Your task to perform on an android device: open app "Etsy: Buy & Sell Unique Items" (install if not already installed) Image 0: 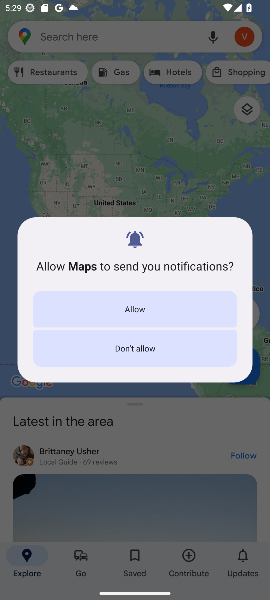
Step 0: press home button
Your task to perform on an android device: open app "Etsy: Buy & Sell Unique Items" (install if not already installed) Image 1: 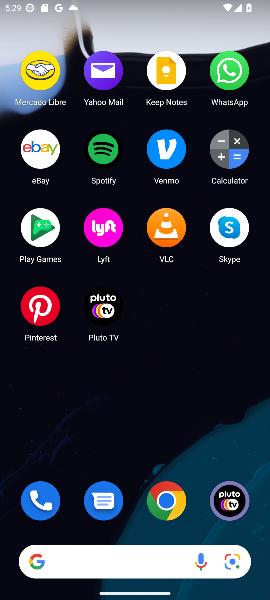
Step 1: drag from (142, 371) to (126, 42)
Your task to perform on an android device: open app "Etsy: Buy & Sell Unique Items" (install if not already installed) Image 2: 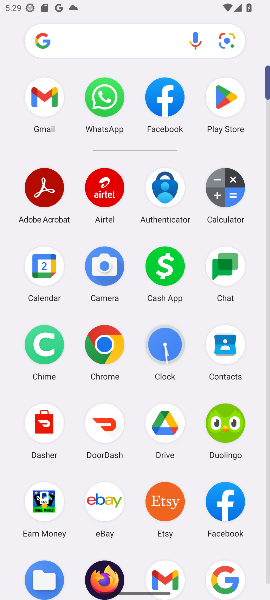
Step 2: click (221, 96)
Your task to perform on an android device: open app "Etsy: Buy & Sell Unique Items" (install if not already installed) Image 3: 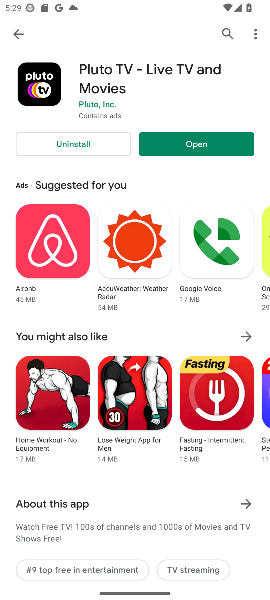
Step 3: click (221, 35)
Your task to perform on an android device: open app "Etsy: Buy & Sell Unique Items" (install if not already installed) Image 4: 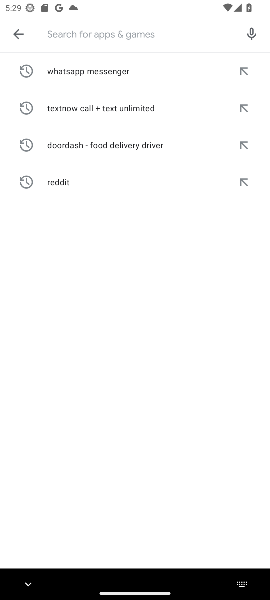
Step 4: type "Etsy: Buy & Sell Unique Items"
Your task to perform on an android device: open app "Etsy: Buy & Sell Unique Items" (install if not already installed) Image 5: 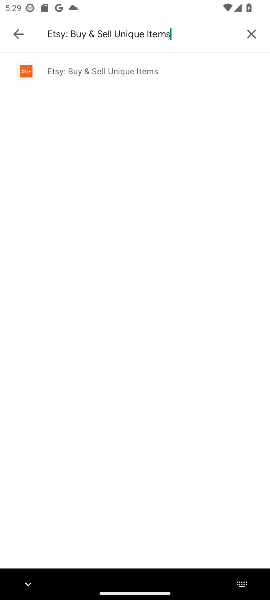
Step 5: click (68, 77)
Your task to perform on an android device: open app "Etsy: Buy & Sell Unique Items" (install if not already installed) Image 6: 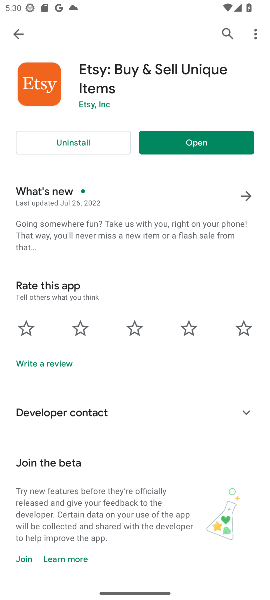
Step 6: click (193, 145)
Your task to perform on an android device: open app "Etsy: Buy & Sell Unique Items" (install if not already installed) Image 7: 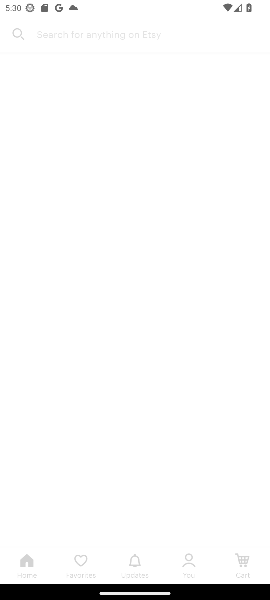
Step 7: press back button
Your task to perform on an android device: open app "Etsy: Buy & Sell Unique Items" (install if not already installed) Image 8: 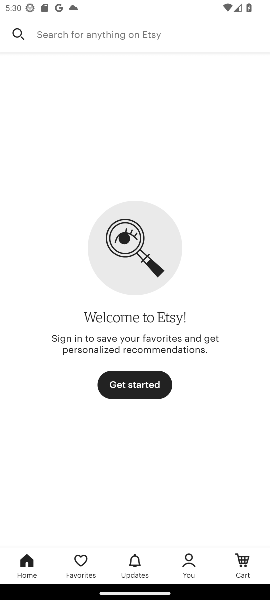
Step 8: press back button
Your task to perform on an android device: open app "Etsy: Buy & Sell Unique Items" (install if not already installed) Image 9: 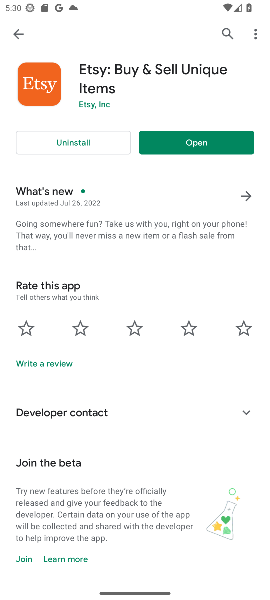
Step 9: click (188, 143)
Your task to perform on an android device: open app "Etsy: Buy & Sell Unique Items" (install if not already installed) Image 10: 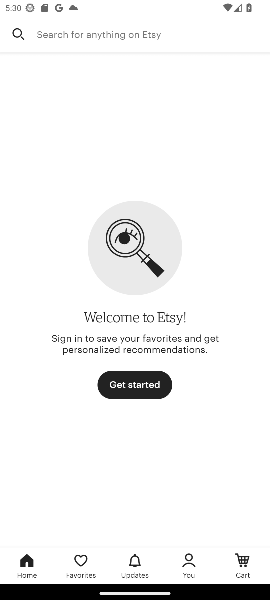
Step 10: task complete